Your task to perform on an android device: install app "LinkedIn" Image 0: 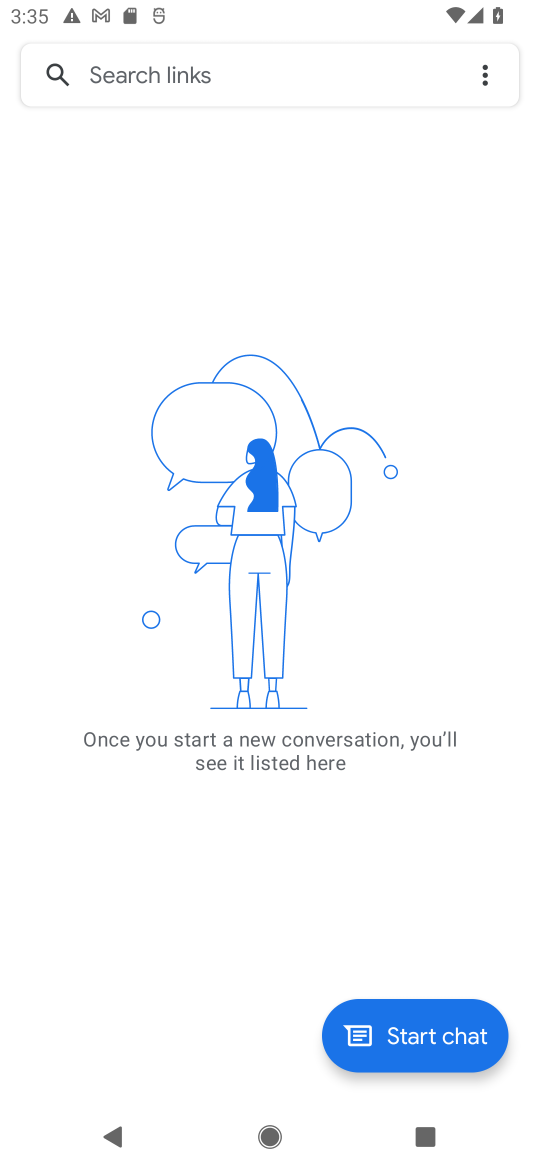
Step 0: press home button
Your task to perform on an android device: install app "LinkedIn" Image 1: 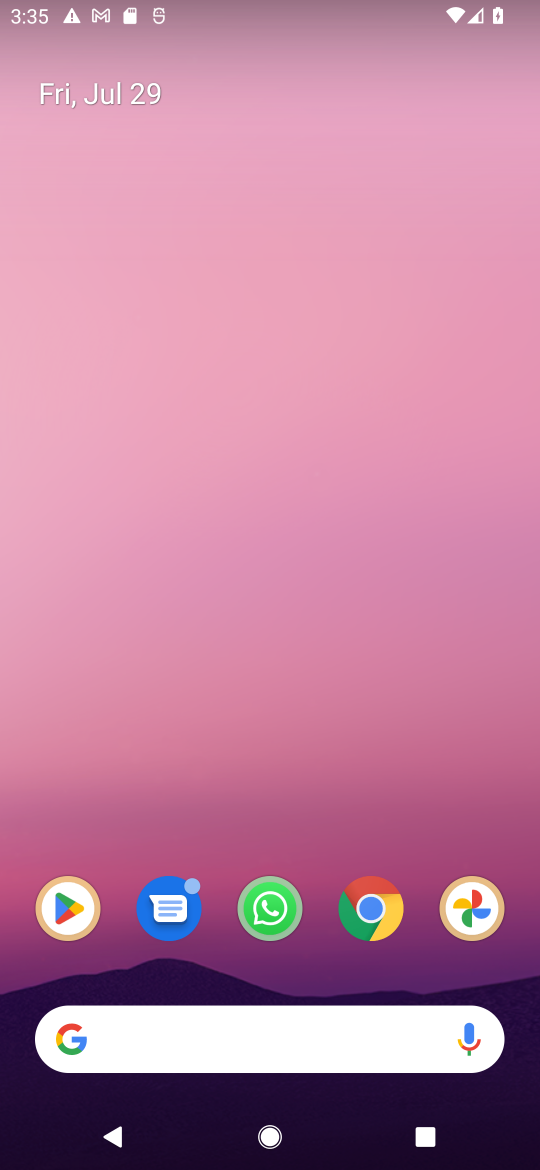
Step 1: click (78, 895)
Your task to perform on an android device: install app "LinkedIn" Image 2: 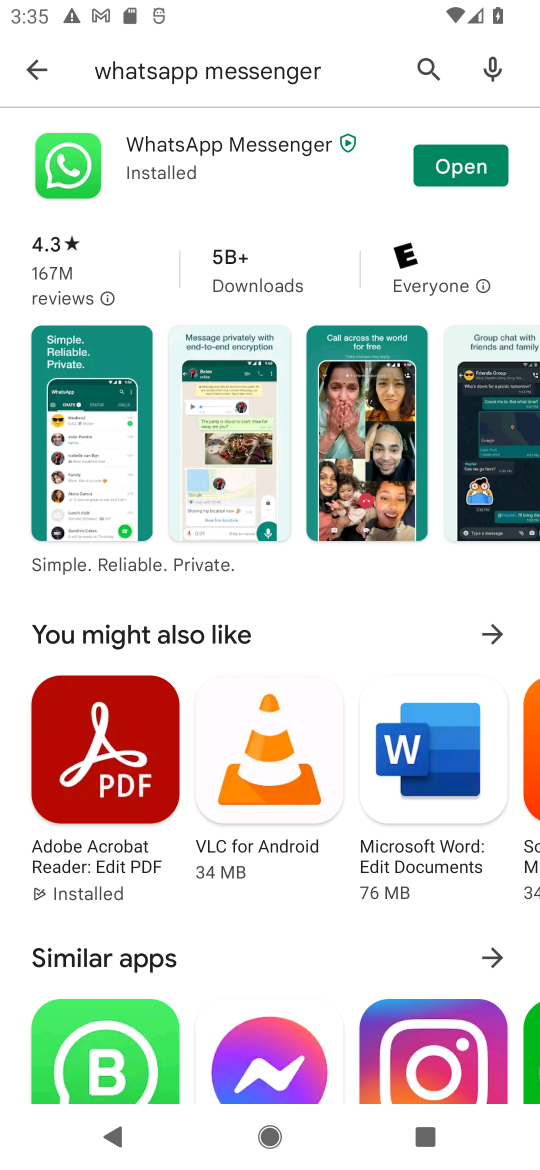
Step 2: click (429, 49)
Your task to perform on an android device: install app "LinkedIn" Image 3: 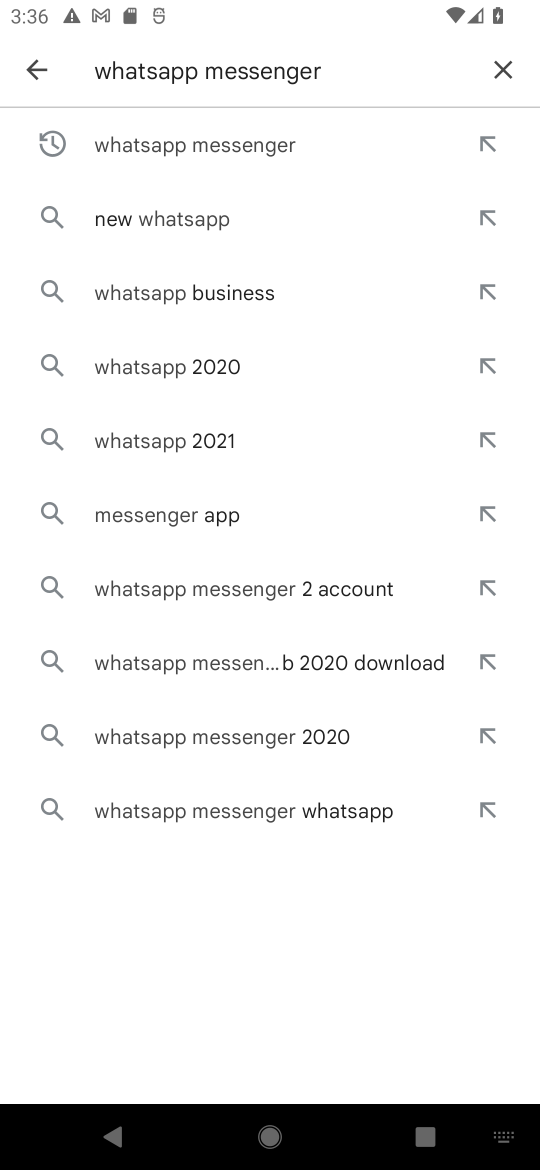
Step 3: click (501, 64)
Your task to perform on an android device: install app "LinkedIn" Image 4: 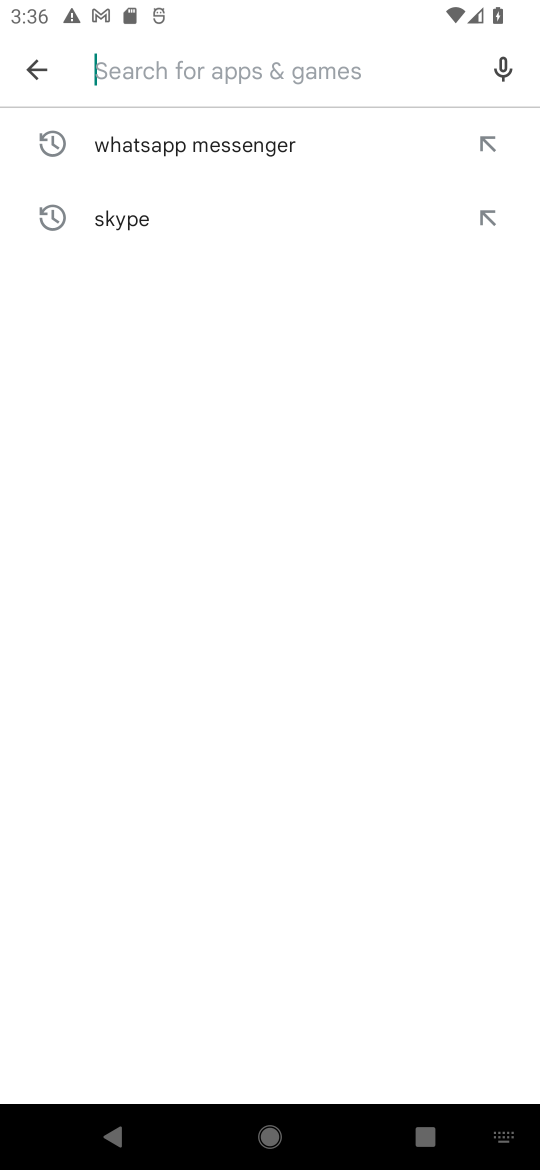
Step 4: type "Linkedin"
Your task to perform on an android device: install app "LinkedIn" Image 5: 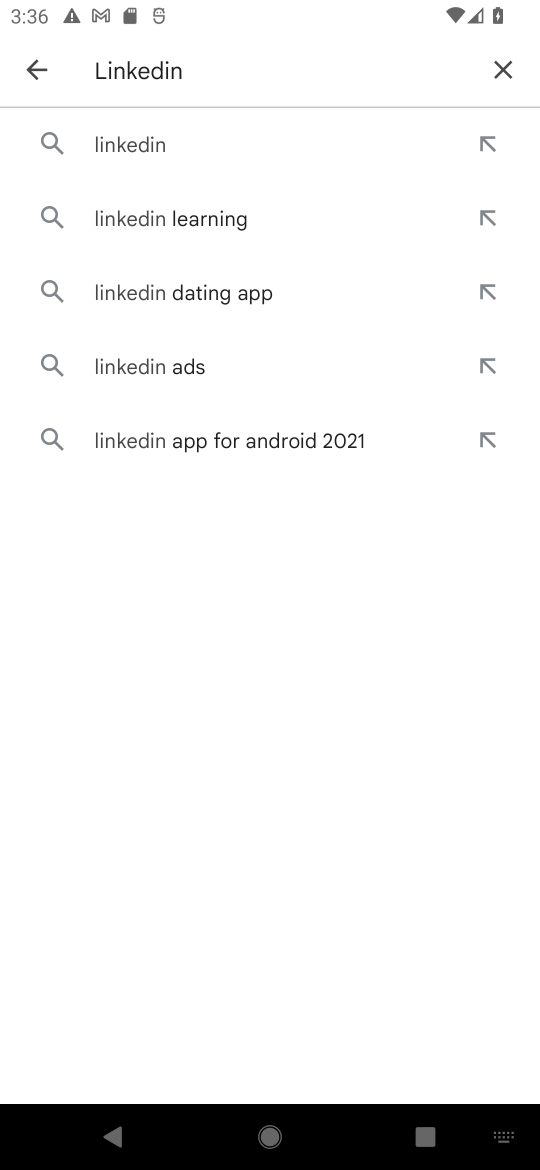
Step 5: click (177, 130)
Your task to perform on an android device: install app "LinkedIn" Image 6: 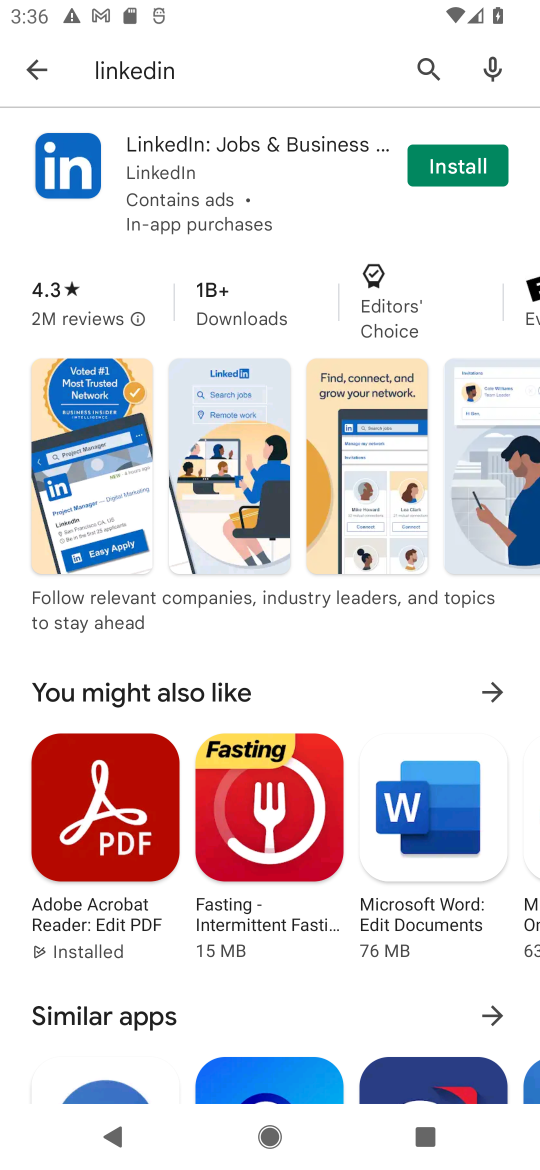
Step 6: click (485, 162)
Your task to perform on an android device: install app "LinkedIn" Image 7: 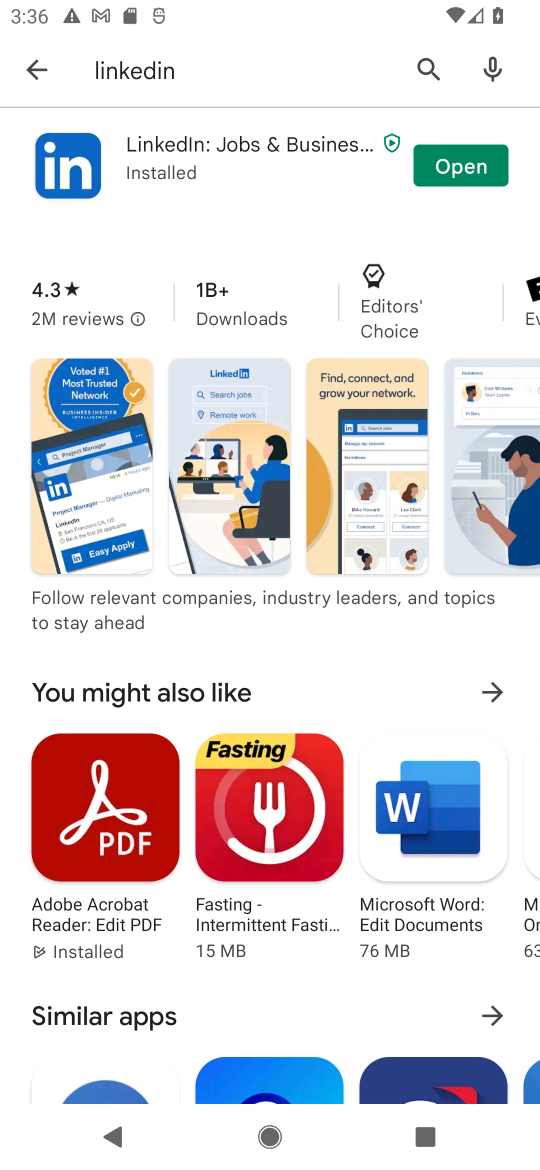
Step 7: task complete